Your task to perform on an android device: read, delete, or share a saved page in the chrome app Image 0: 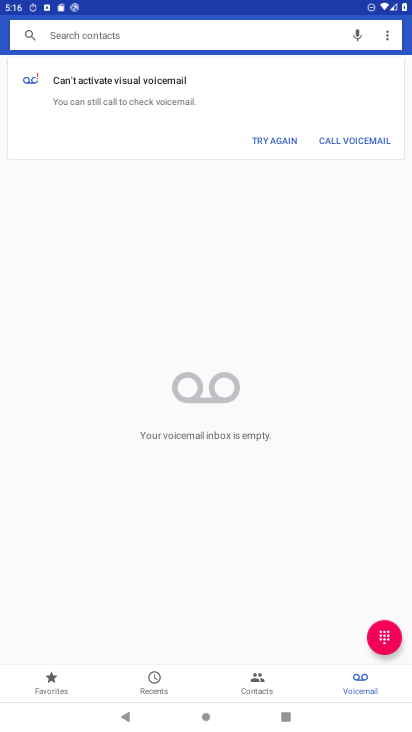
Step 0: press home button
Your task to perform on an android device: read, delete, or share a saved page in the chrome app Image 1: 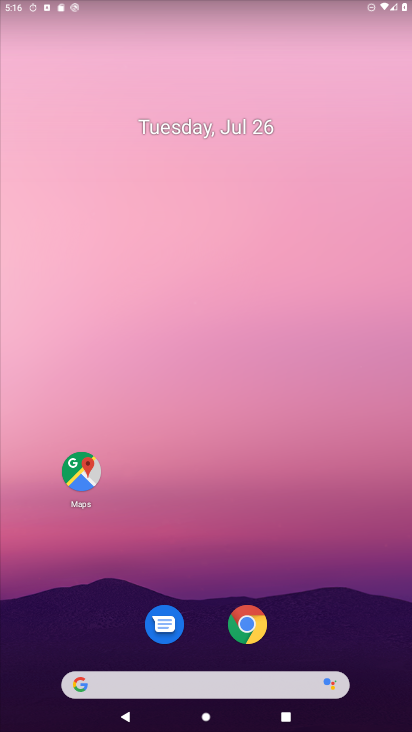
Step 1: drag from (322, 680) to (333, 155)
Your task to perform on an android device: read, delete, or share a saved page in the chrome app Image 2: 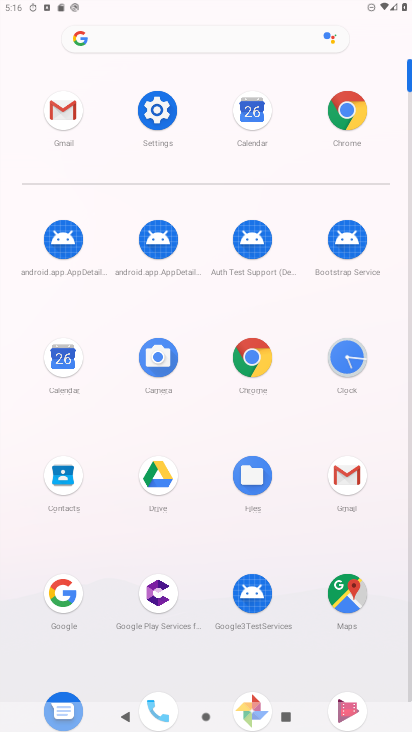
Step 2: click (243, 360)
Your task to perform on an android device: read, delete, or share a saved page in the chrome app Image 3: 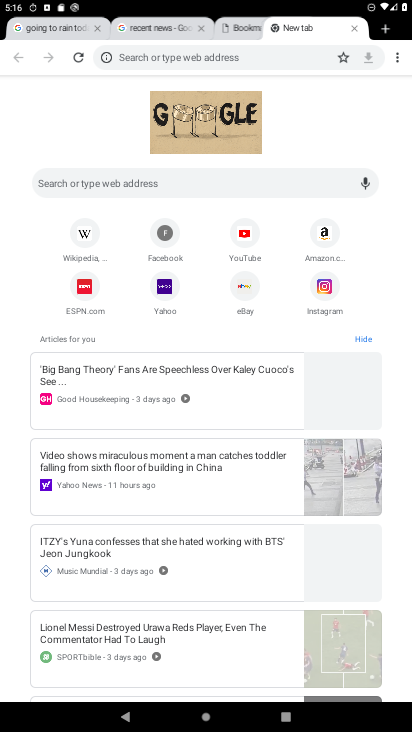
Step 3: click (397, 58)
Your task to perform on an android device: read, delete, or share a saved page in the chrome app Image 4: 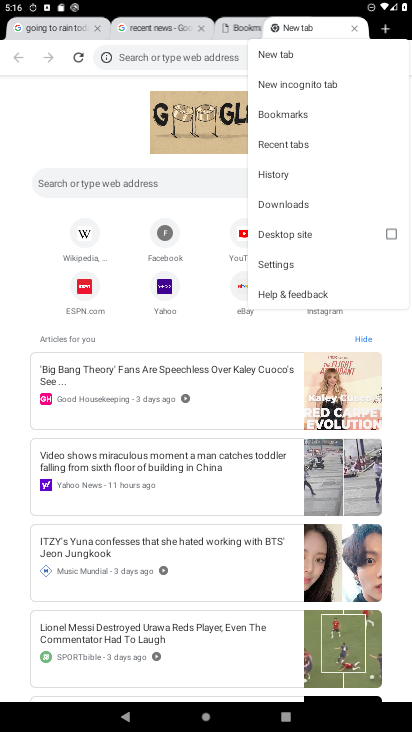
Step 4: click (301, 201)
Your task to perform on an android device: read, delete, or share a saved page in the chrome app Image 5: 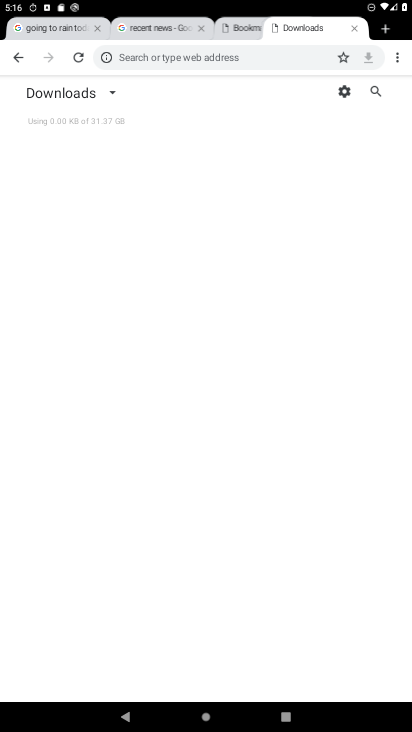
Step 5: task complete